Your task to perform on an android device: Go to location settings Image 0: 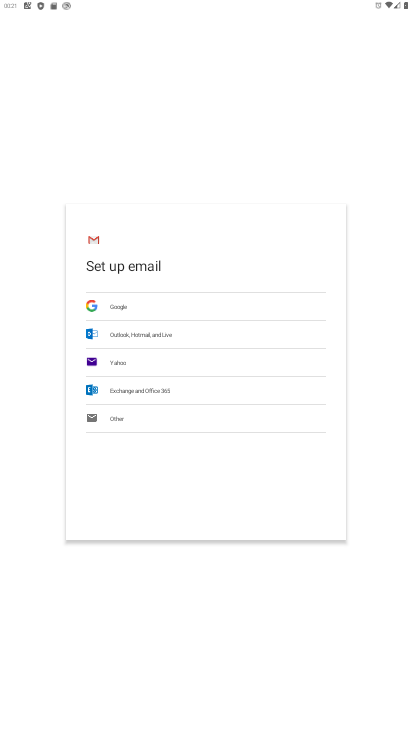
Step 0: press home button
Your task to perform on an android device: Go to location settings Image 1: 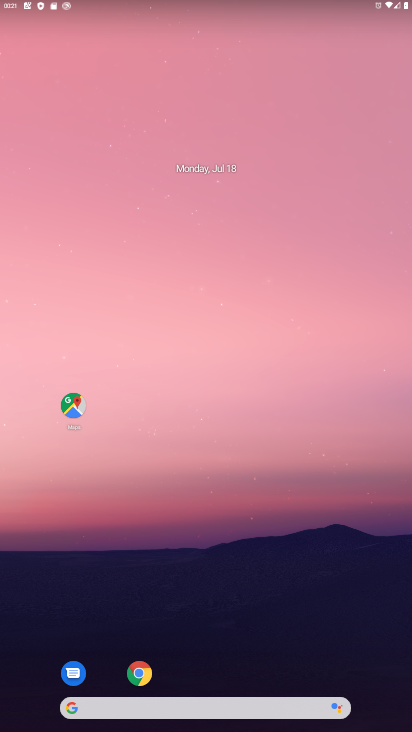
Step 1: drag from (222, 668) to (198, 70)
Your task to perform on an android device: Go to location settings Image 2: 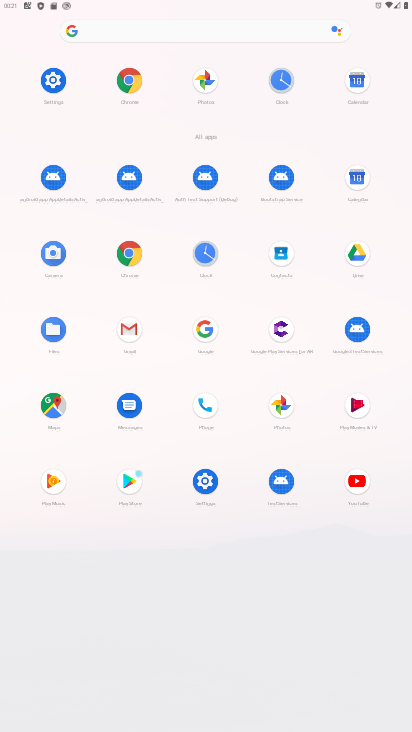
Step 2: click (194, 474)
Your task to perform on an android device: Go to location settings Image 3: 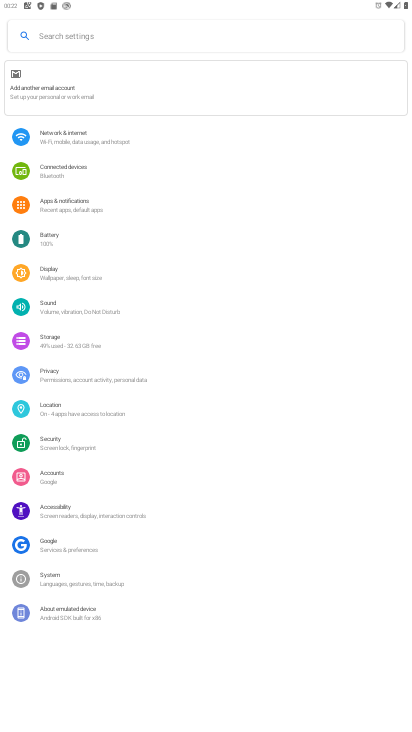
Step 3: click (94, 190)
Your task to perform on an android device: Go to location settings Image 4: 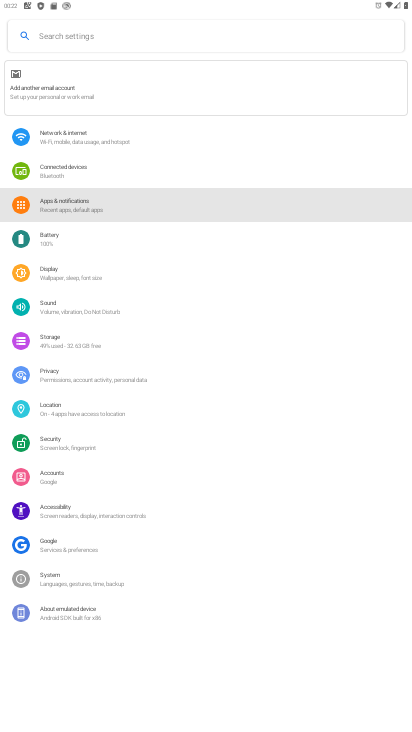
Step 4: task complete